Your task to perform on an android device: Go to location settings Image 0: 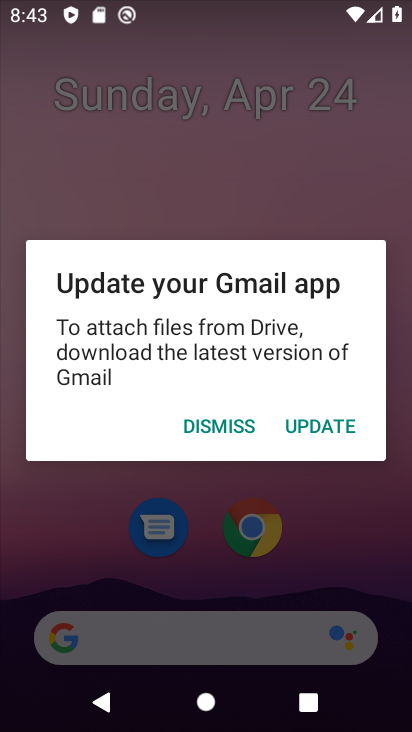
Step 0: press home button
Your task to perform on an android device: Go to location settings Image 1: 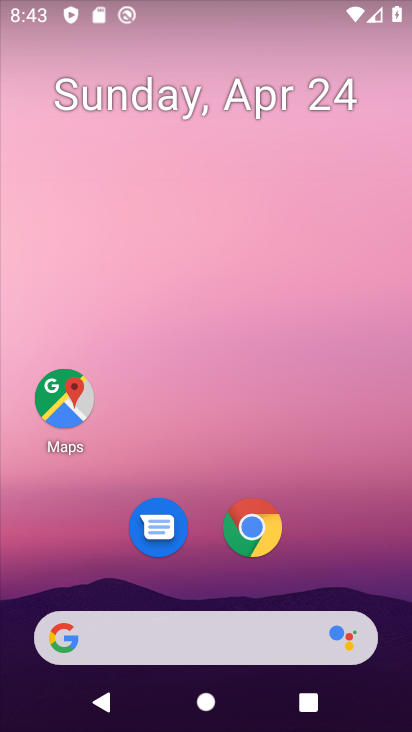
Step 1: drag from (367, 479) to (353, 148)
Your task to perform on an android device: Go to location settings Image 2: 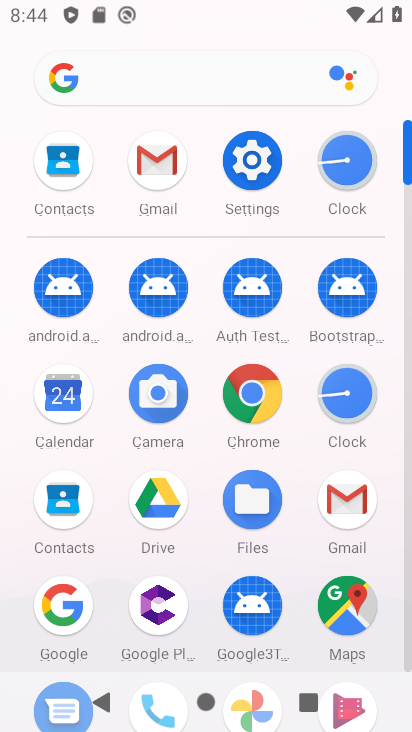
Step 2: click (245, 166)
Your task to perform on an android device: Go to location settings Image 3: 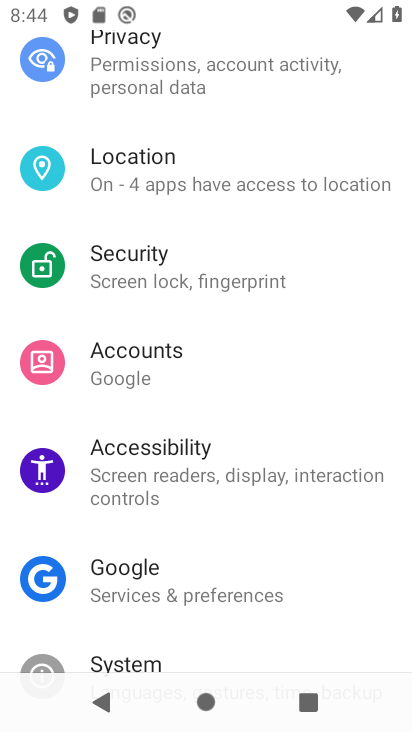
Step 3: click (218, 165)
Your task to perform on an android device: Go to location settings Image 4: 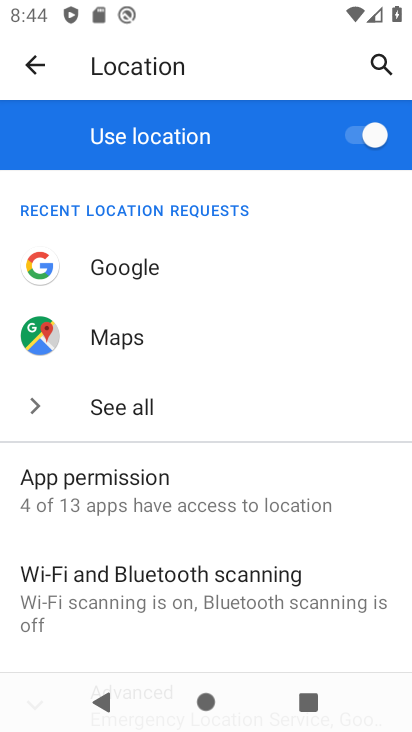
Step 4: task complete